Your task to perform on an android device: toggle translation in the chrome app Image 0: 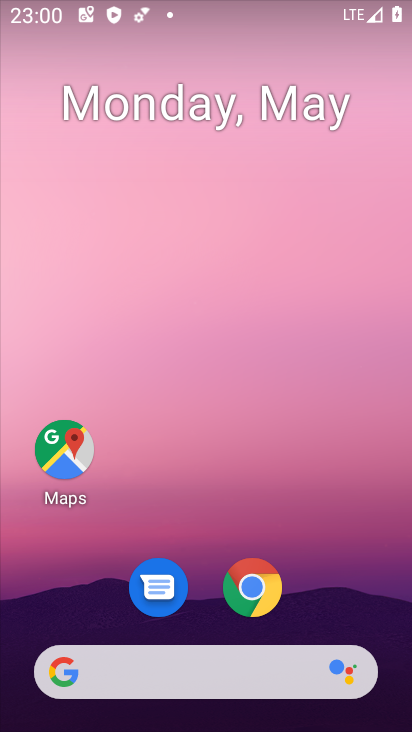
Step 0: click (259, 585)
Your task to perform on an android device: toggle translation in the chrome app Image 1: 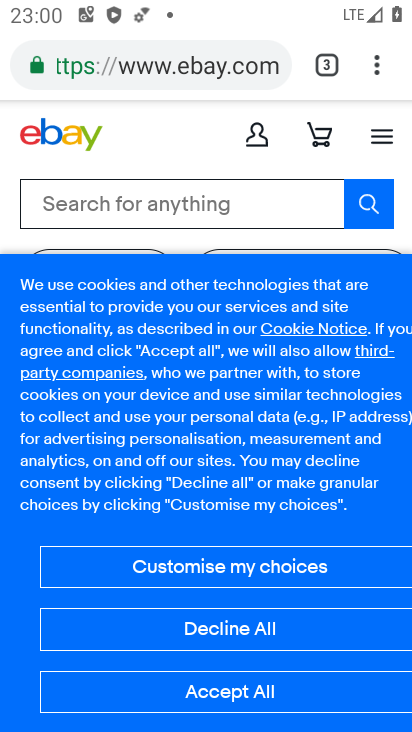
Step 1: drag from (373, 67) to (174, 641)
Your task to perform on an android device: toggle translation in the chrome app Image 2: 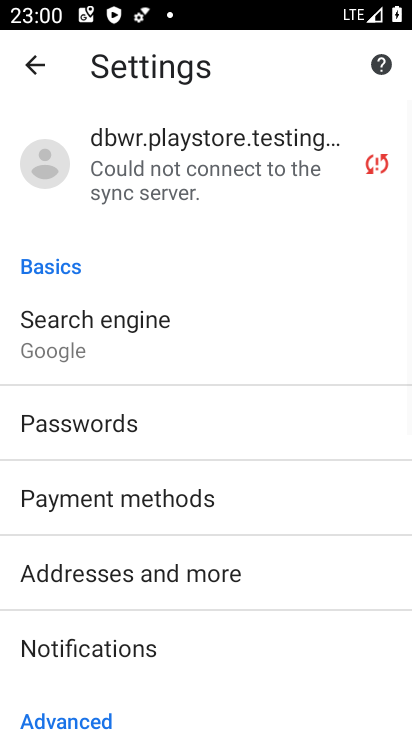
Step 2: drag from (190, 618) to (157, 218)
Your task to perform on an android device: toggle translation in the chrome app Image 3: 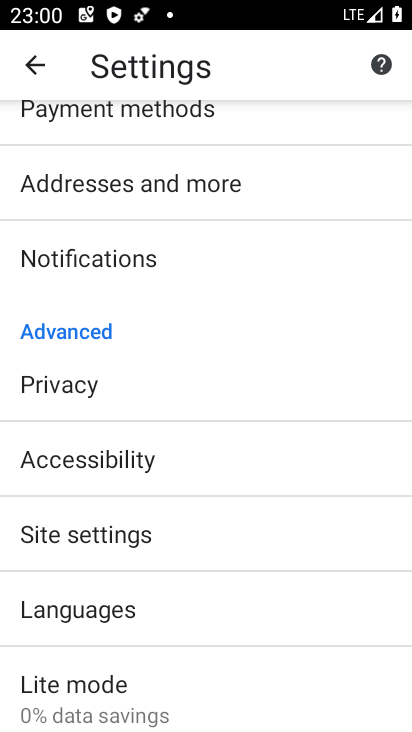
Step 3: click (97, 595)
Your task to perform on an android device: toggle translation in the chrome app Image 4: 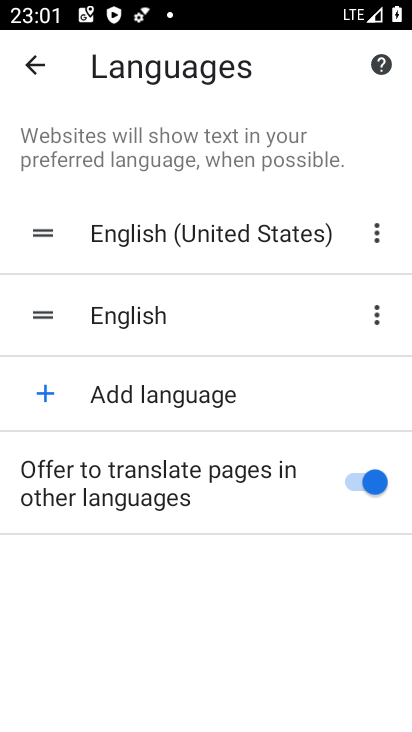
Step 4: click (360, 480)
Your task to perform on an android device: toggle translation in the chrome app Image 5: 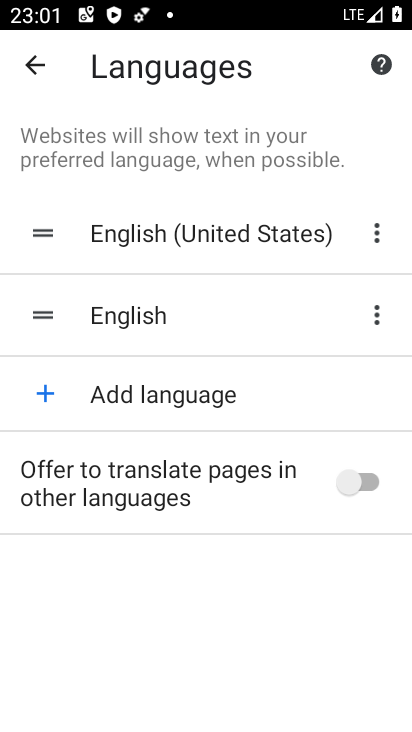
Step 5: task complete